Your task to perform on an android device: toggle location history Image 0: 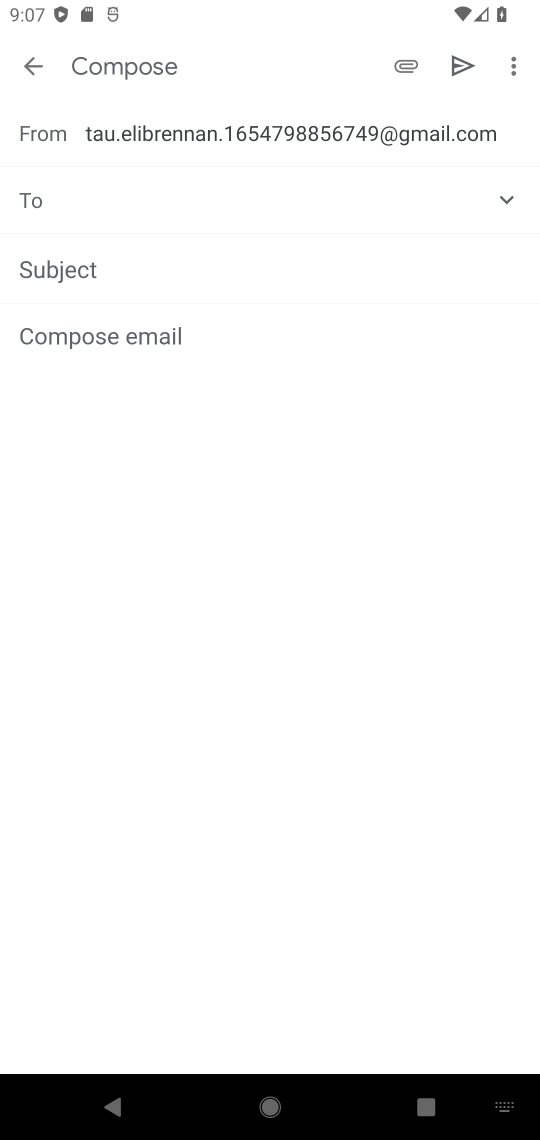
Step 0: press back button
Your task to perform on an android device: toggle location history Image 1: 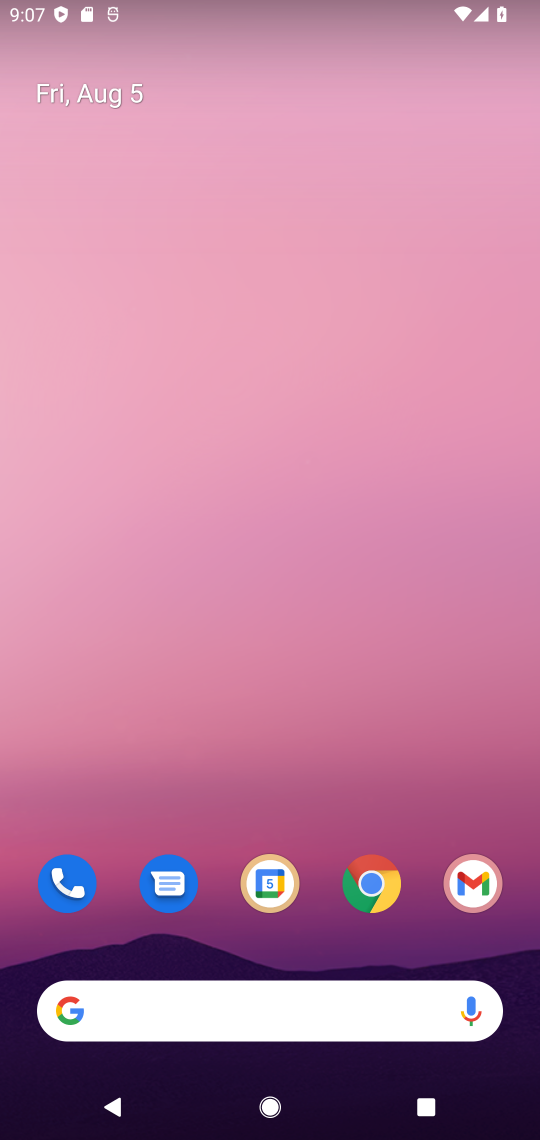
Step 1: drag from (227, 931) to (316, 100)
Your task to perform on an android device: toggle location history Image 2: 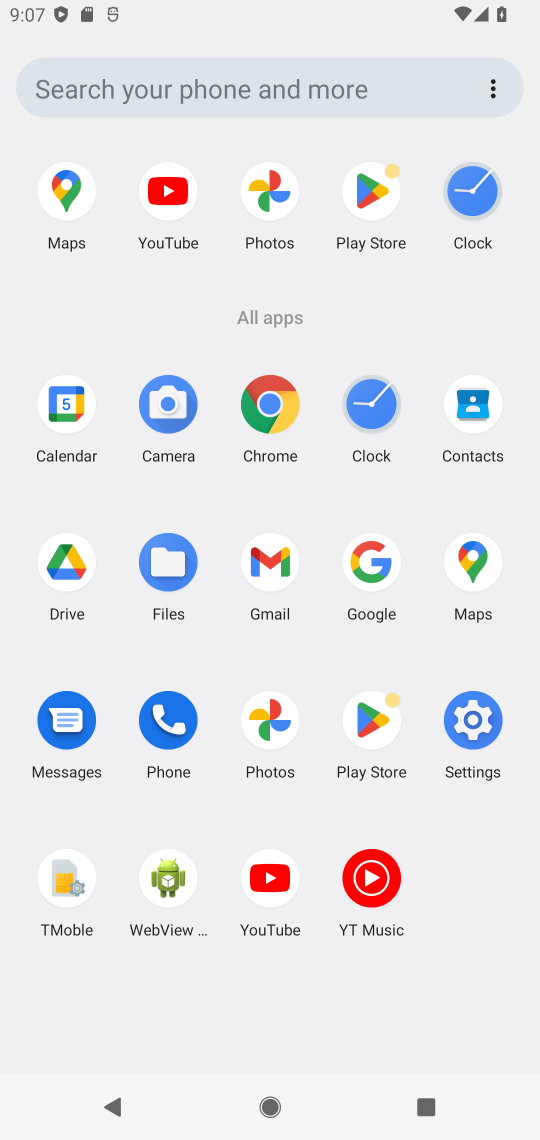
Step 2: click (472, 724)
Your task to perform on an android device: toggle location history Image 3: 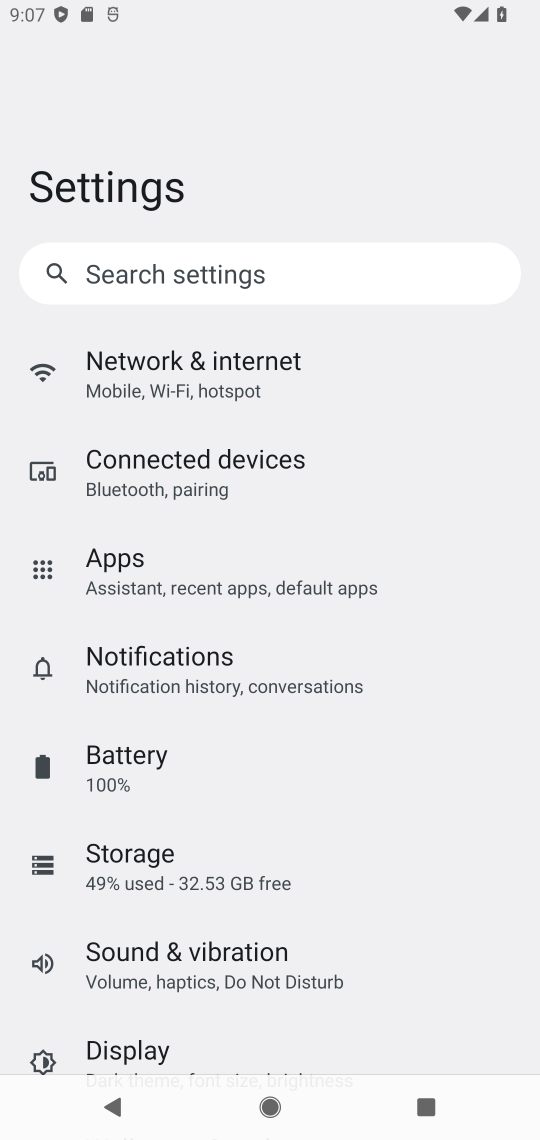
Step 3: drag from (208, 900) to (287, 174)
Your task to perform on an android device: toggle location history Image 4: 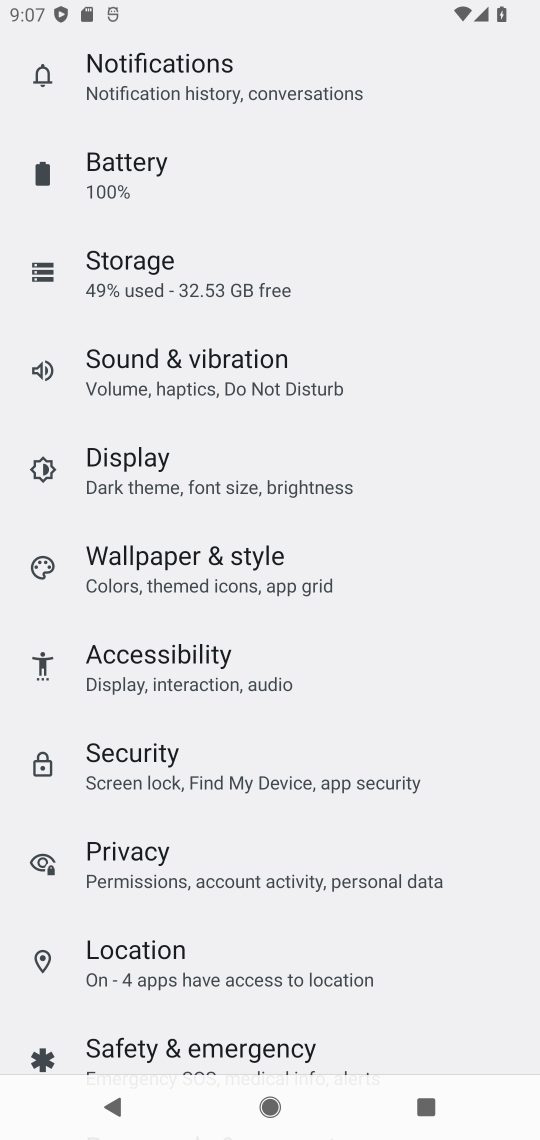
Step 4: click (222, 962)
Your task to perform on an android device: toggle location history Image 5: 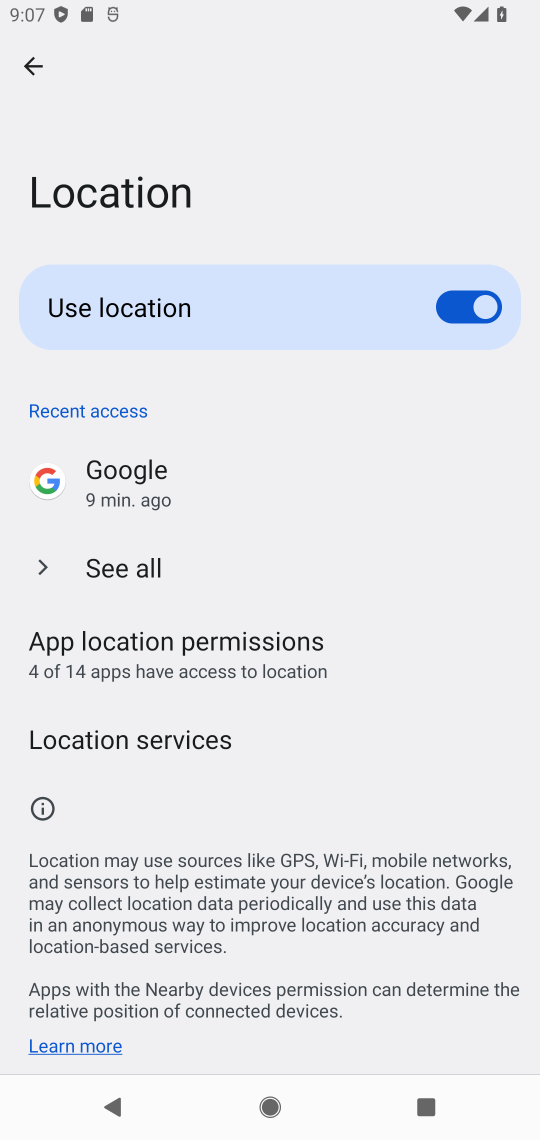
Step 5: click (183, 748)
Your task to perform on an android device: toggle location history Image 6: 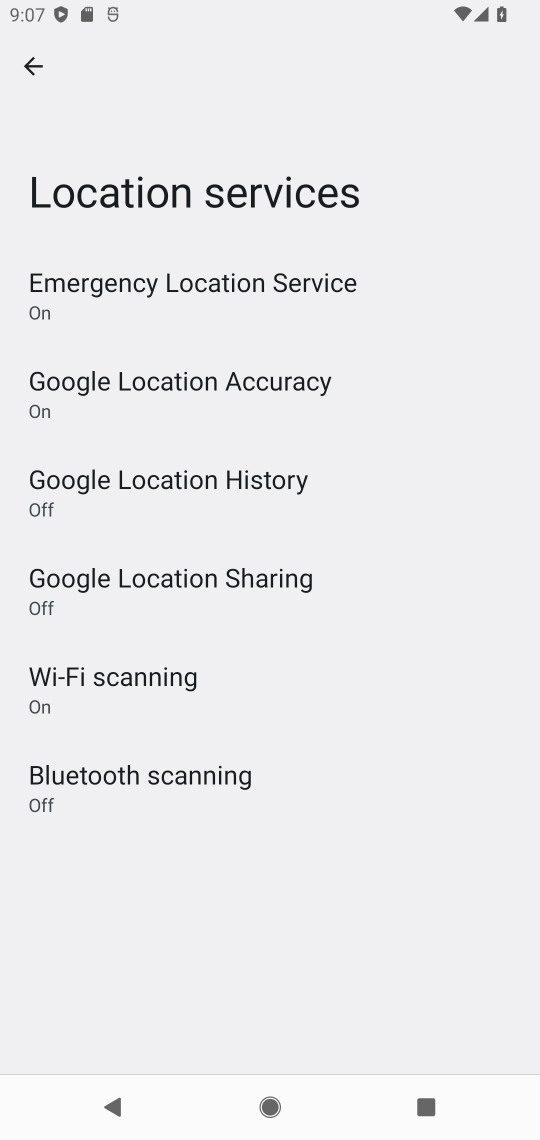
Step 6: click (202, 506)
Your task to perform on an android device: toggle location history Image 7: 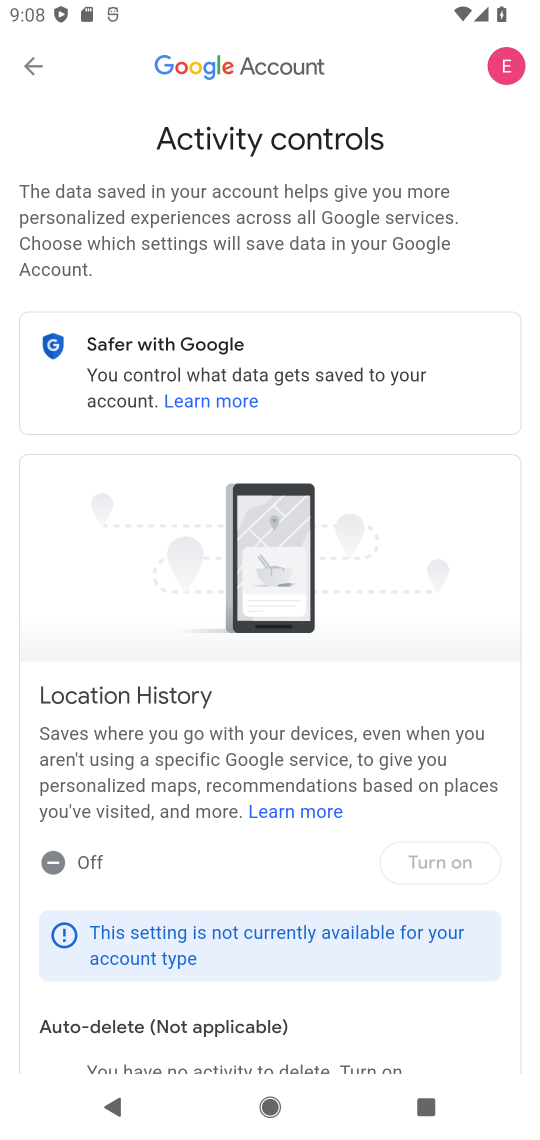
Step 7: task complete